Your task to perform on an android device: delete the emails in spam in the gmail app Image 0: 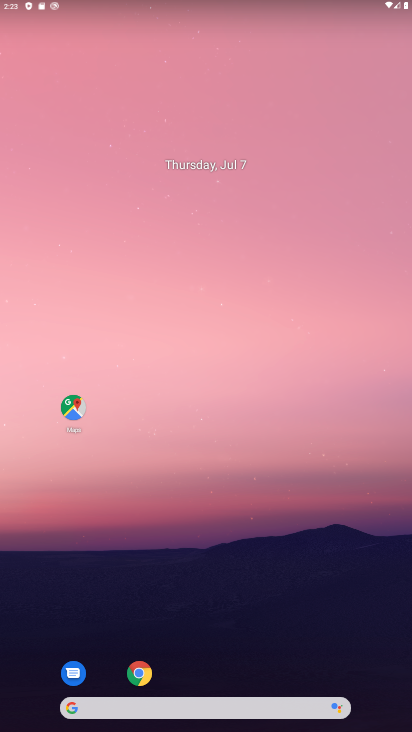
Step 0: drag from (340, 539) to (393, 64)
Your task to perform on an android device: delete the emails in spam in the gmail app Image 1: 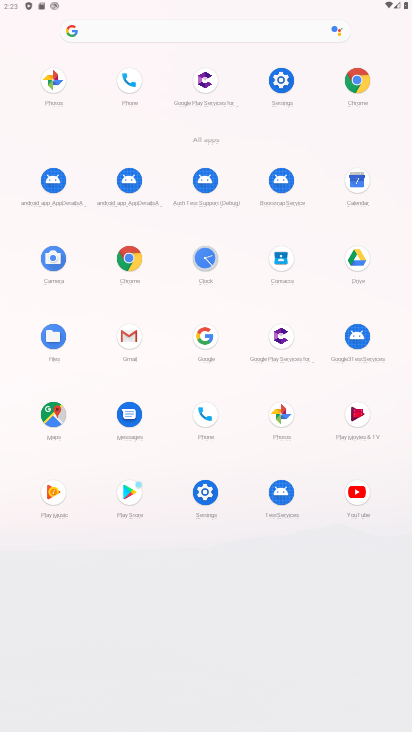
Step 1: click (126, 333)
Your task to perform on an android device: delete the emails in spam in the gmail app Image 2: 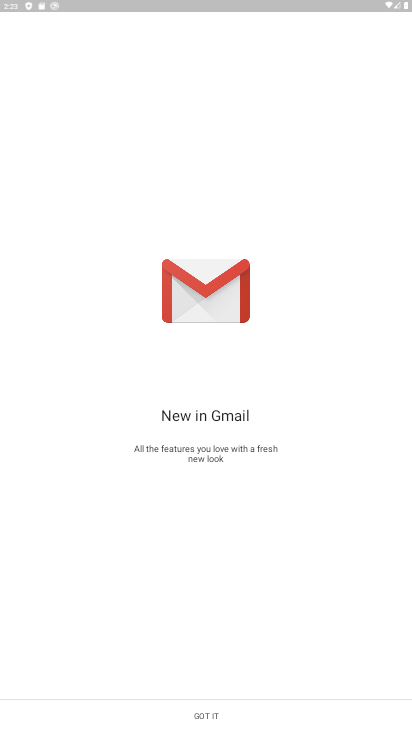
Step 2: click (220, 714)
Your task to perform on an android device: delete the emails in spam in the gmail app Image 3: 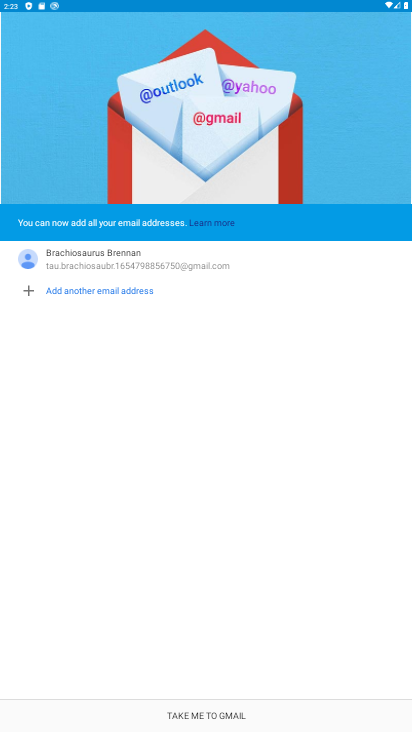
Step 3: click (228, 713)
Your task to perform on an android device: delete the emails in spam in the gmail app Image 4: 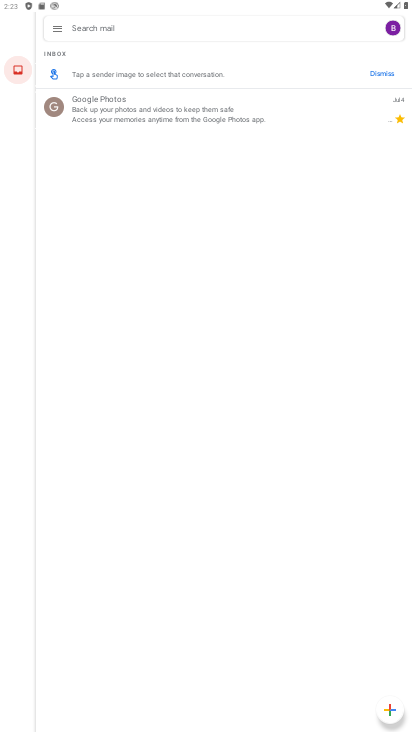
Step 4: click (71, 107)
Your task to perform on an android device: delete the emails in spam in the gmail app Image 5: 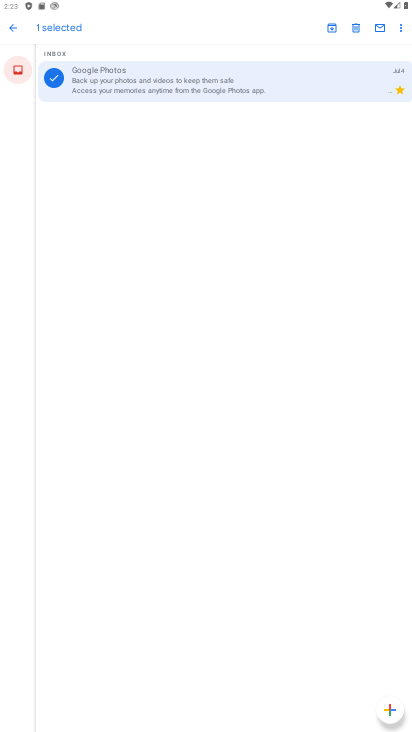
Step 5: click (96, 162)
Your task to perform on an android device: delete the emails in spam in the gmail app Image 6: 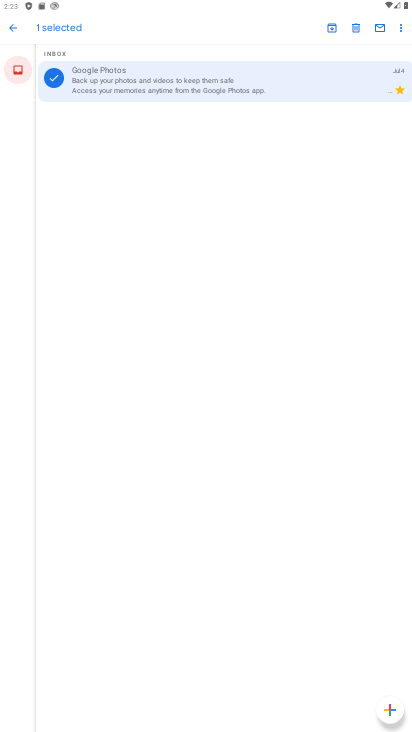
Step 6: click (56, 80)
Your task to perform on an android device: delete the emails in spam in the gmail app Image 7: 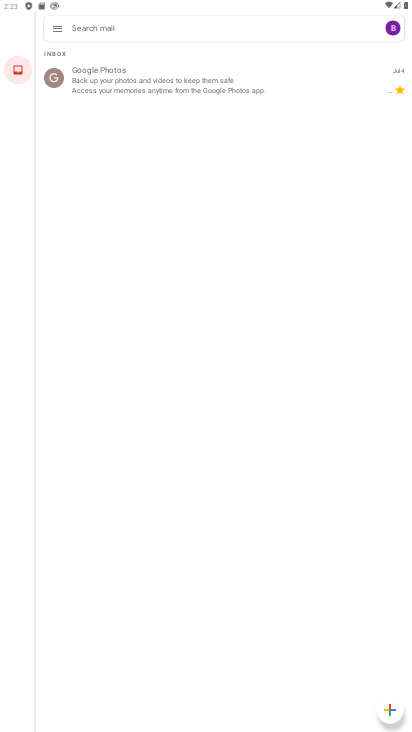
Step 7: click (57, 27)
Your task to perform on an android device: delete the emails in spam in the gmail app Image 8: 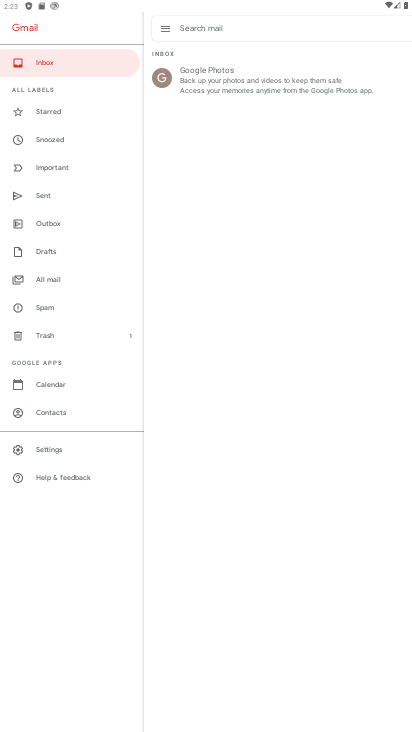
Step 8: click (44, 305)
Your task to perform on an android device: delete the emails in spam in the gmail app Image 9: 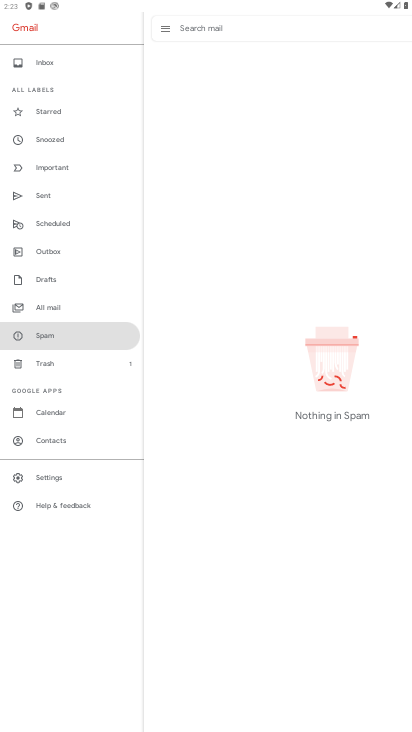
Step 9: task complete